Your task to perform on an android device: Open ESPN.com Image 0: 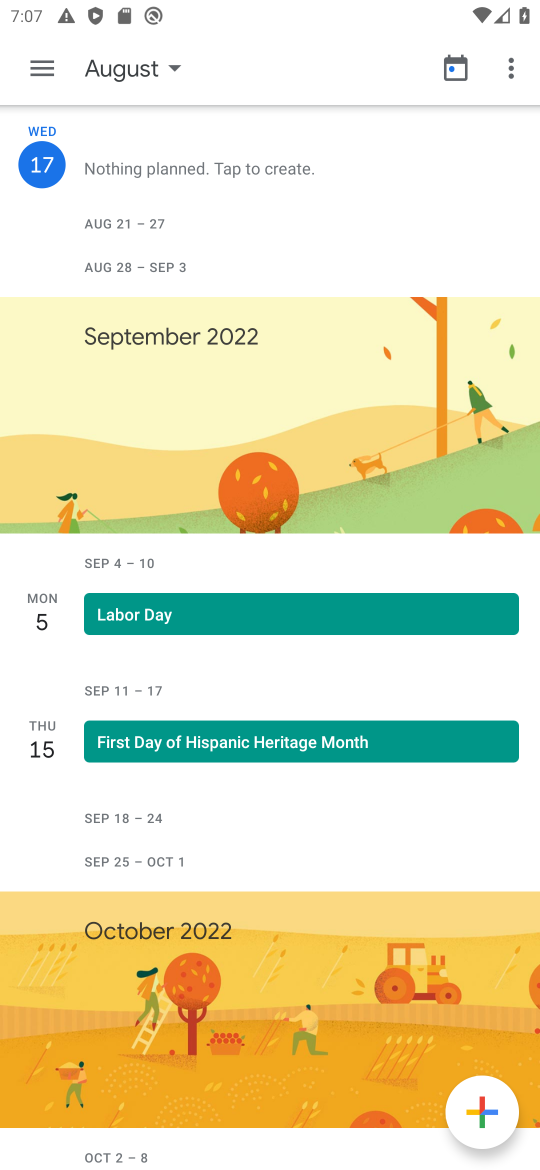
Step 0: press home button
Your task to perform on an android device: Open ESPN.com Image 1: 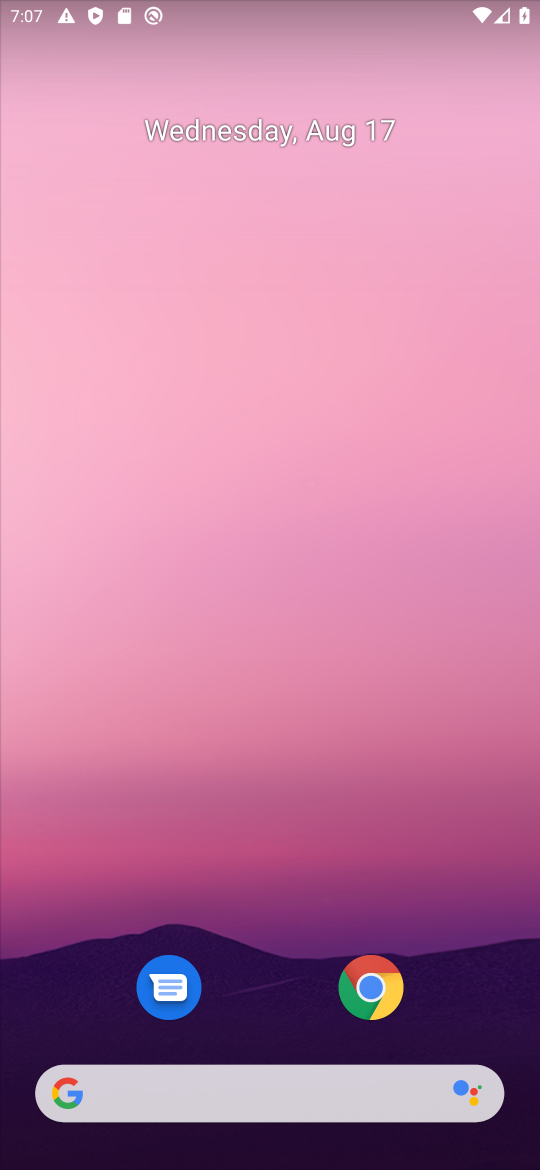
Step 1: drag from (492, 970) to (226, 116)
Your task to perform on an android device: Open ESPN.com Image 2: 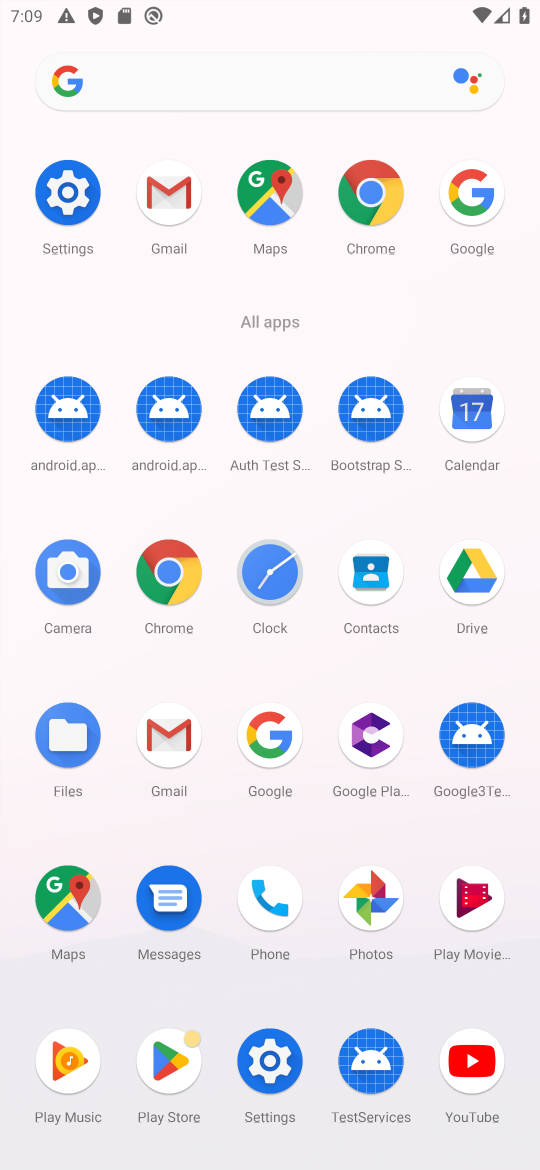
Step 2: click (270, 760)
Your task to perform on an android device: Open ESPN.com Image 3: 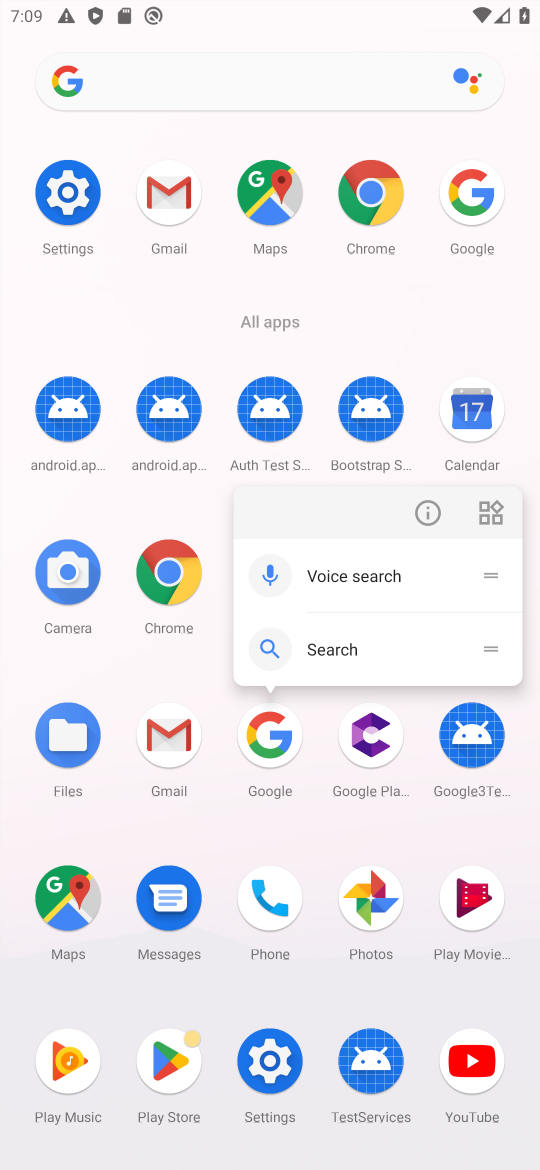
Step 3: click (274, 738)
Your task to perform on an android device: Open ESPN.com Image 4: 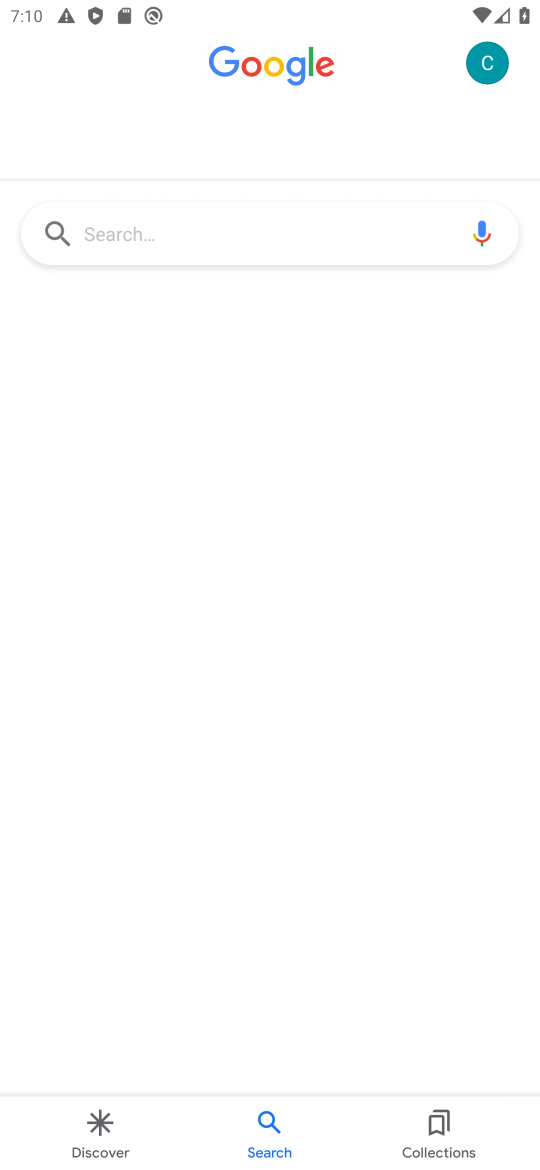
Step 4: click (249, 244)
Your task to perform on an android device: Open ESPN.com Image 5: 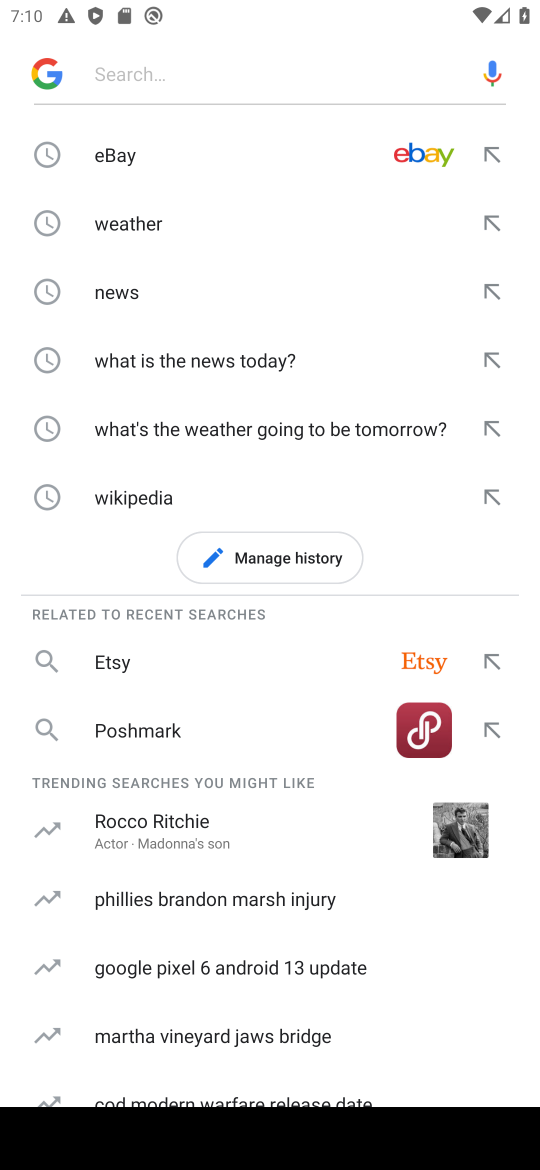
Step 5: type "ESPN.com"
Your task to perform on an android device: Open ESPN.com Image 6: 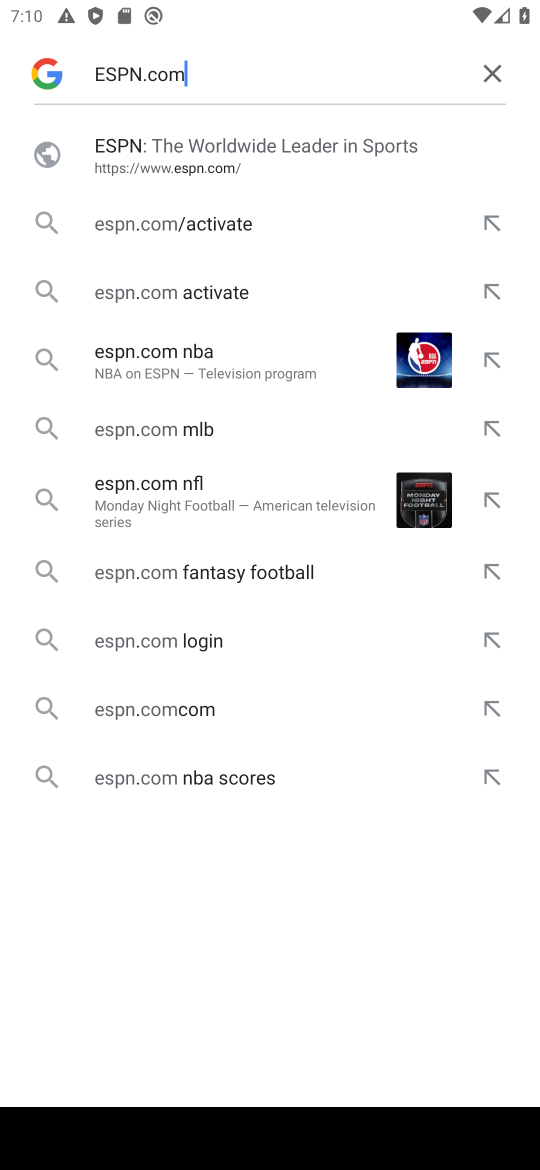
Step 6: click (162, 151)
Your task to perform on an android device: Open ESPN.com Image 7: 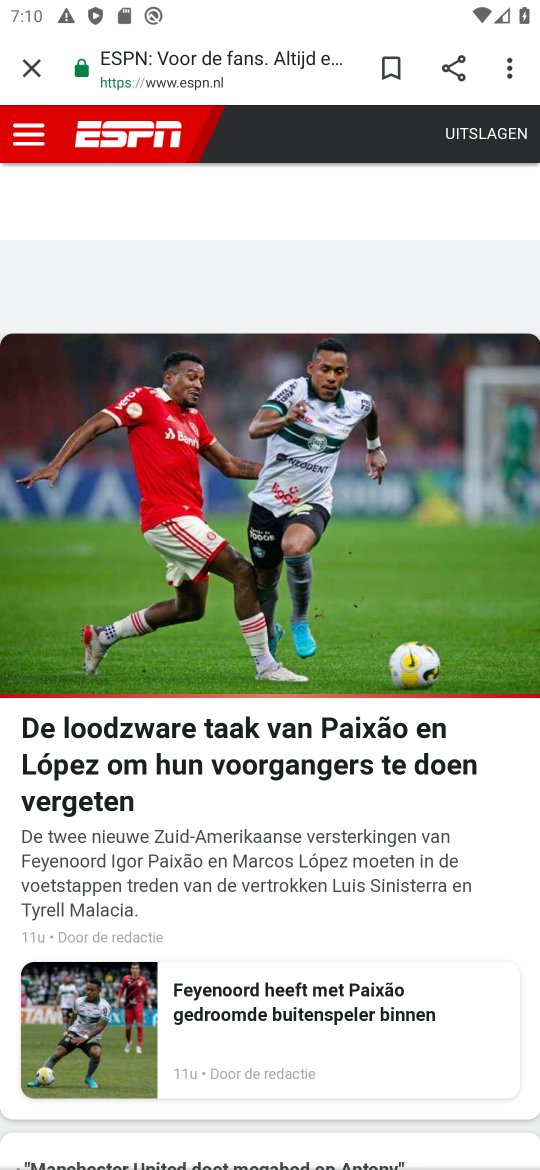
Step 7: task complete